Your task to perform on an android device: Go to sound settings Image 0: 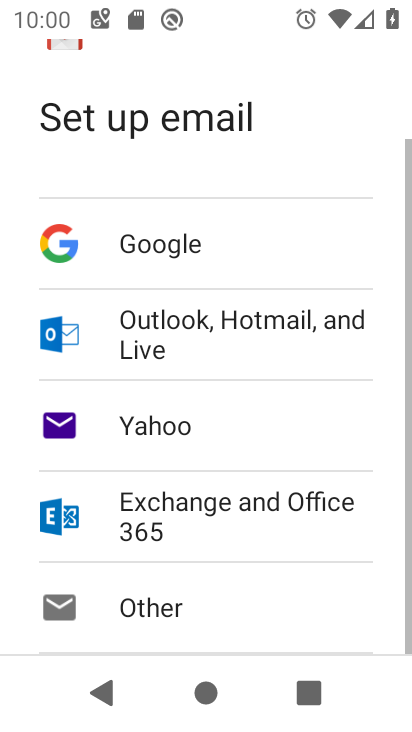
Step 0: press home button
Your task to perform on an android device: Go to sound settings Image 1: 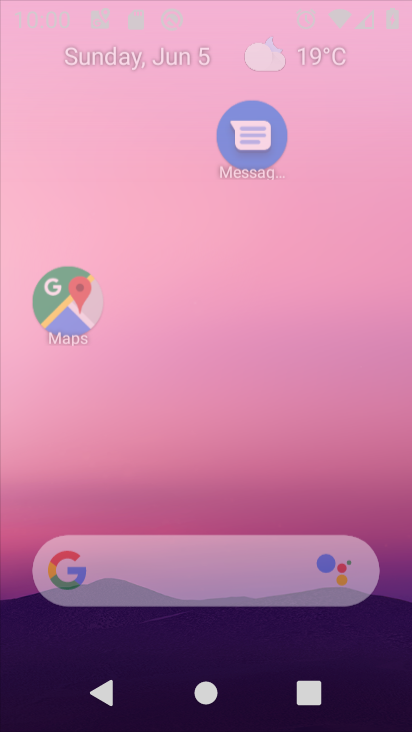
Step 1: drag from (247, 565) to (341, 76)
Your task to perform on an android device: Go to sound settings Image 2: 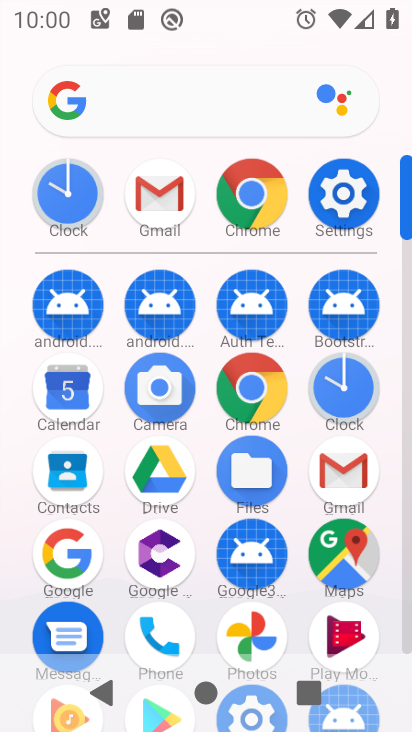
Step 2: click (342, 198)
Your task to perform on an android device: Go to sound settings Image 3: 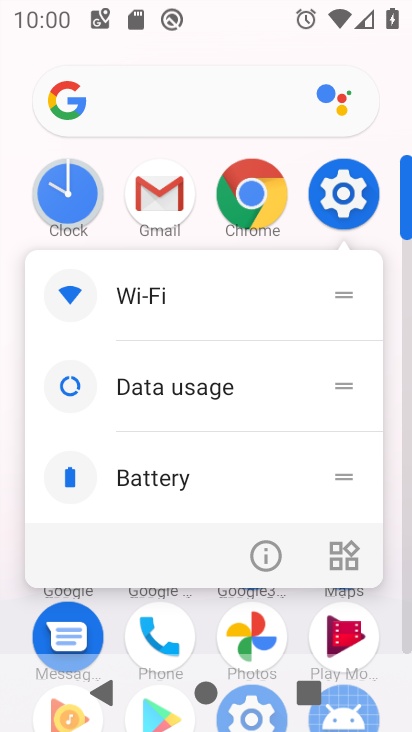
Step 3: click (256, 542)
Your task to perform on an android device: Go to sound settings Image 4: 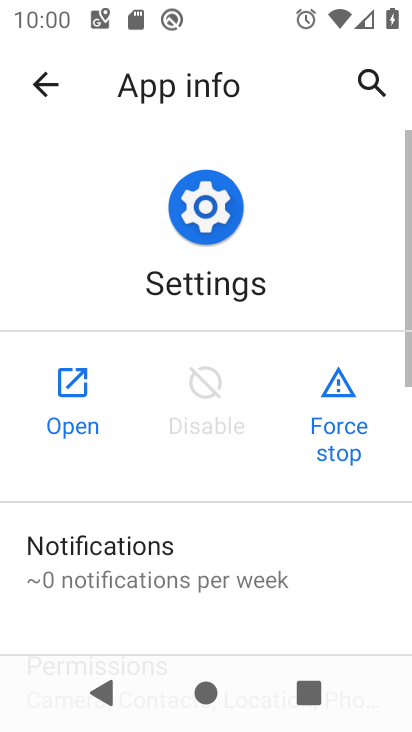
Step 4: click (71, 392)
Your task to perform on an android device: Go to sound settings Image 5: 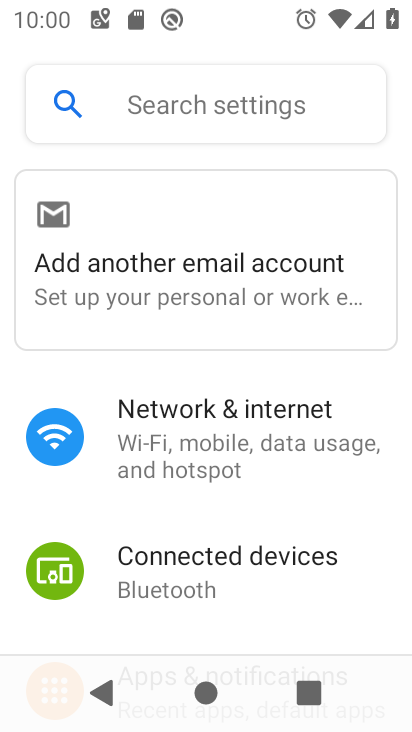
Step 5: drag from (214, 552) to (303, 43)
Your task to perform on an android device: Go to sound settings Image 6: 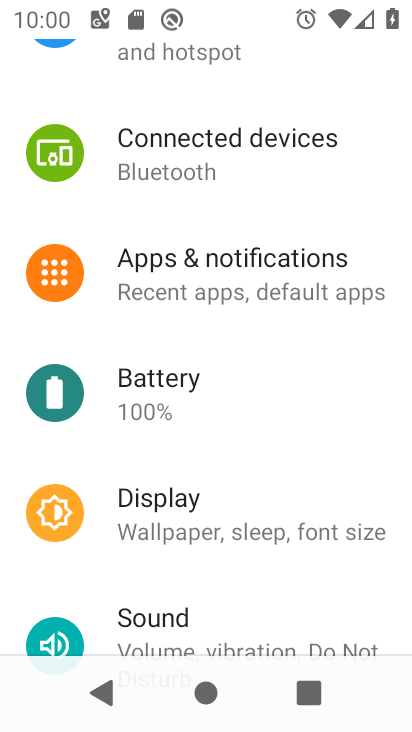
Step 6: drag from (193, 575) to (252, 311)
Your task to perform on an android device: Go to sound settings Image 7: 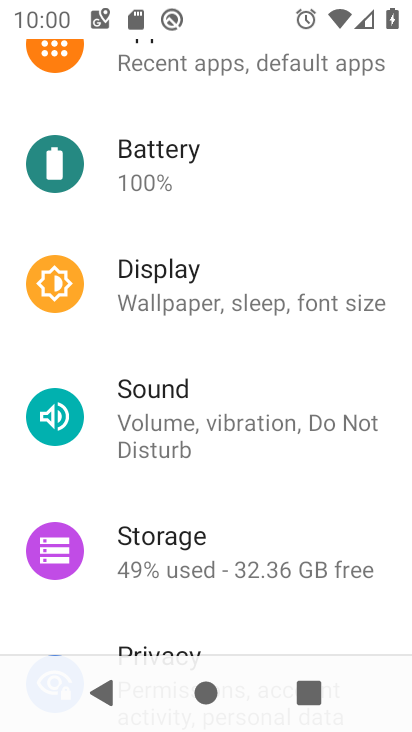
Step 7: click (190, 422)
Your task to perform on an android device: Go to sound settings Image 8: 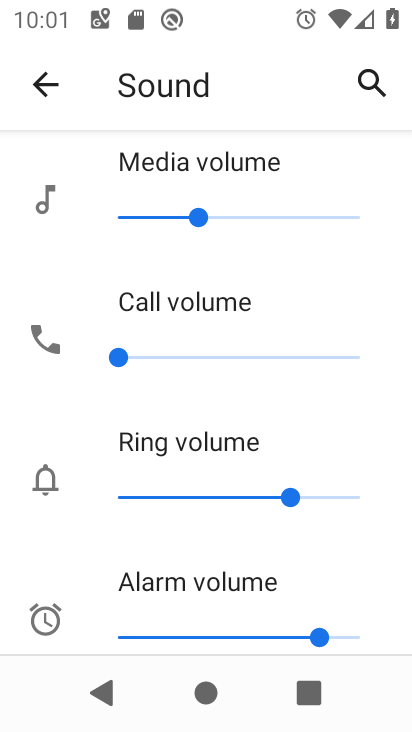
Step 8: task complete